Your task to perform on an android device: visit the assistant section in the google photos Image 0: 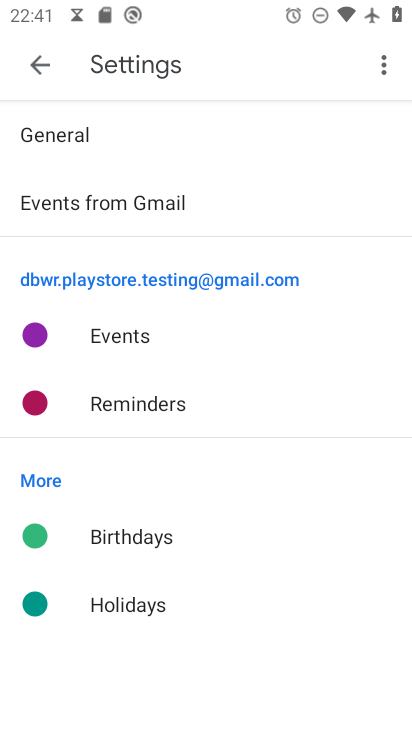
Step 0: press home button
Your task to perform on an android device: visit the assistant section in the google photos Image 1: 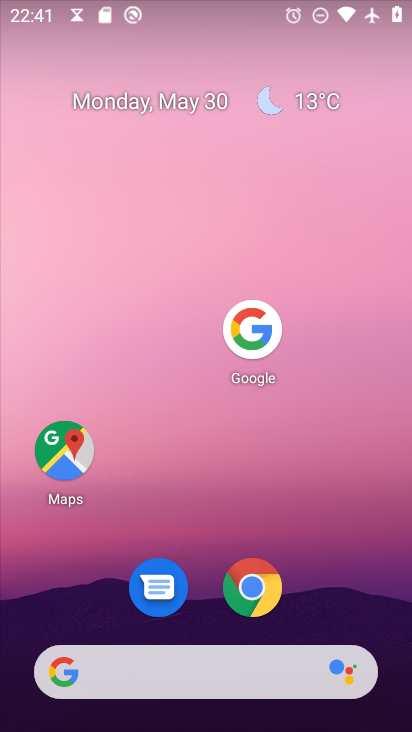
Step 1: drag from (171, 660) to (274, 134)
Your task to perform on an android device: visit the assistant section in the google photos Image 2: 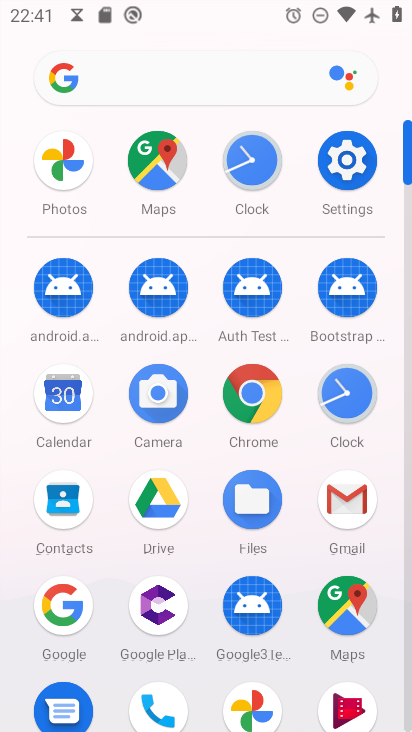
Step 2: click (259, 696)
Your task to perform on an android device: visit the assistant section in the google photos Image 3: 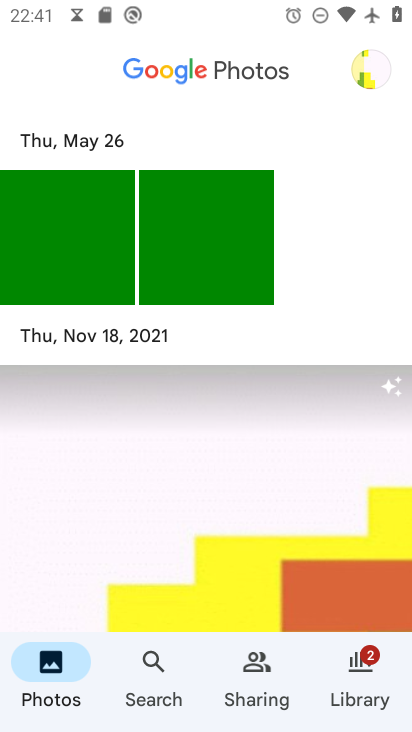
Step 3: click (352, 694)
Your task to perform on an android device: visit the assistant section in the google photos Image 4: 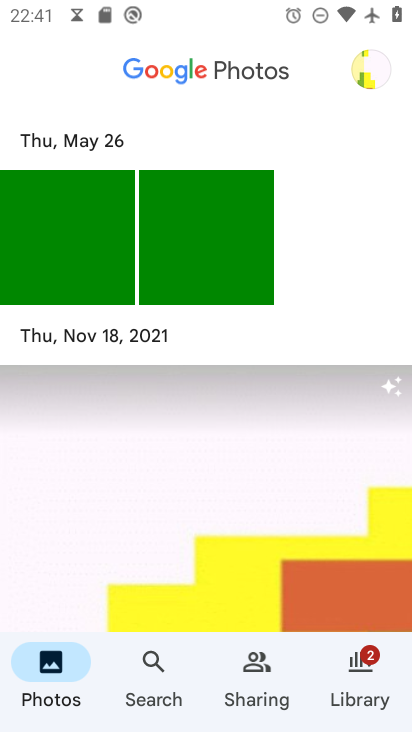
Step 4: click (351, 661)
Your task to perform on an android device: visit the assistant section in the google photos Image 5: 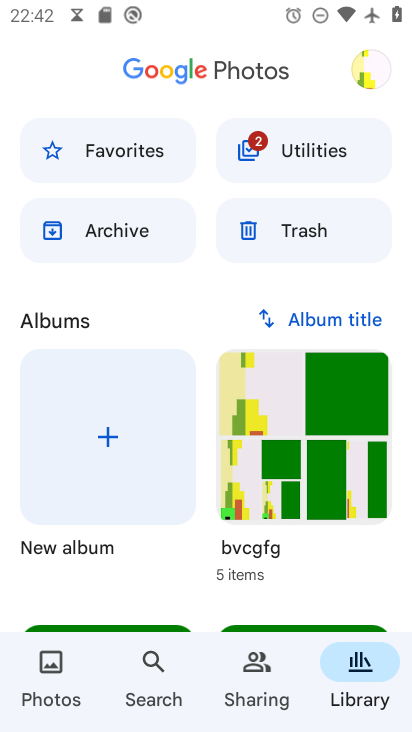
Step 5: task complete